Your task to perform on an android device: set the timer Image 0: 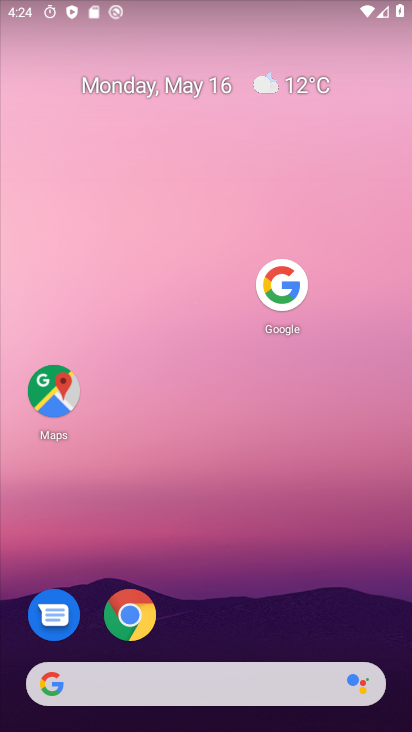
Step 0: drag from (231, 663) to (229, 16)
Your task to perform on an android device: set the timer Image 1: 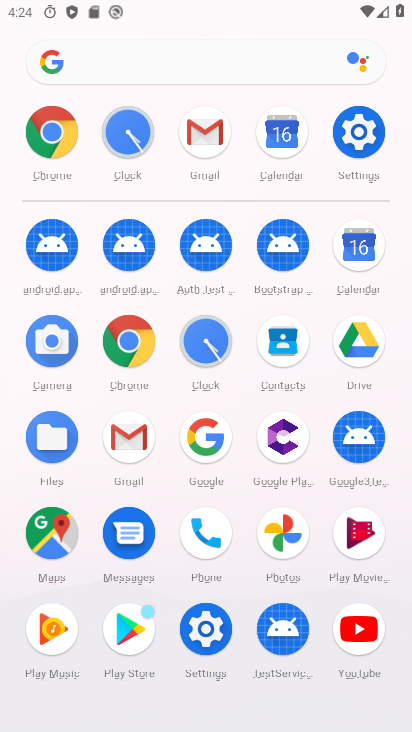
Step 1: click (202, 345)
Your task to perform on an android device: set the timer Image 2: 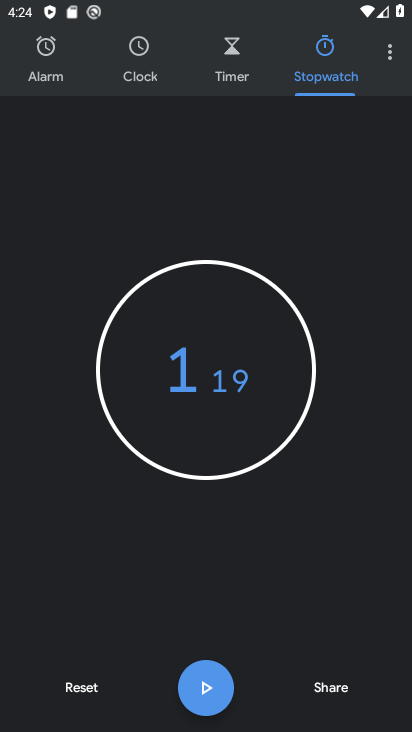
Step 2: click (223, 78)
Your task to perform on an android device: set the timer Image 3: 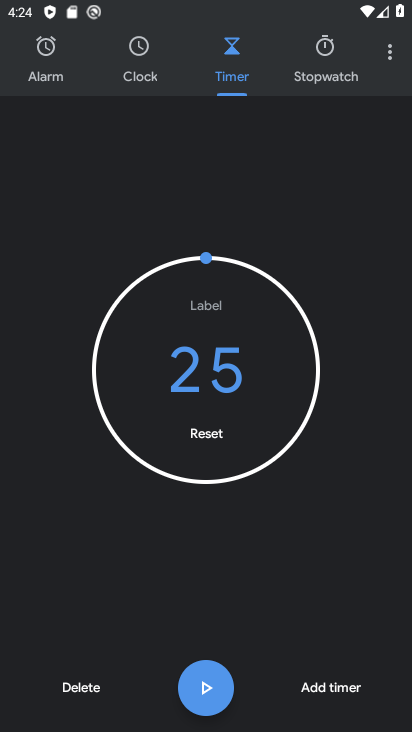
Step 3: click (312, 694)
Your task to perform on an android device: set the timer Image 4: 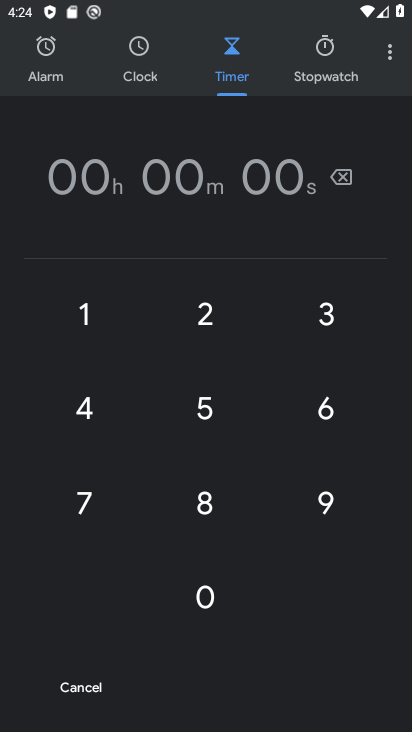
Step 4: click (194, 318)
Your task to perform on an android device: set the timer Image 5: 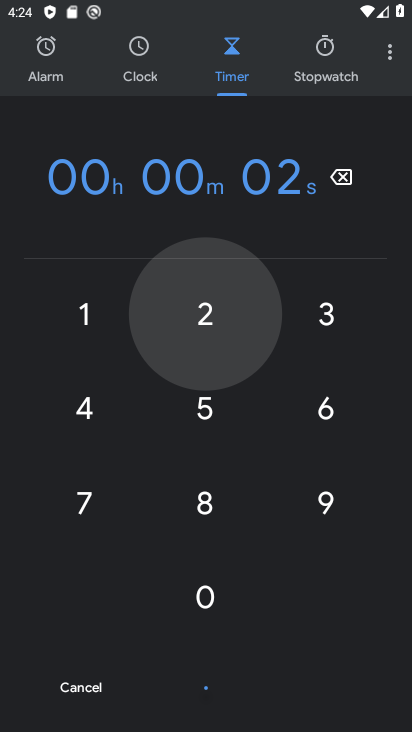
Step 5: click (198, 415)
Your task to perform on an android device: set the timer Image 6: 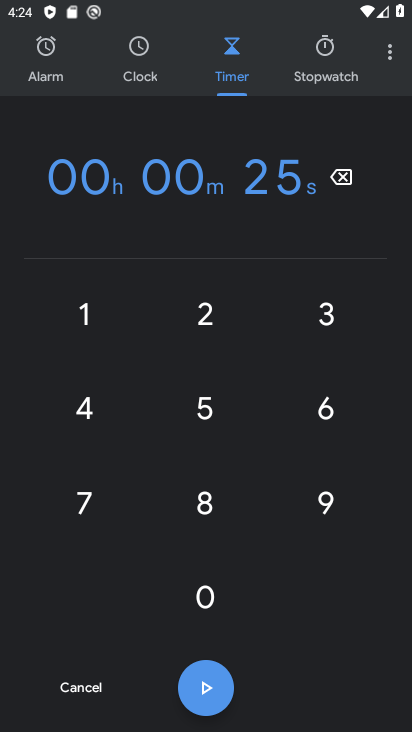
Step 6: click (195, 685)
Your task to perform on an android device: set the timer Image 7: 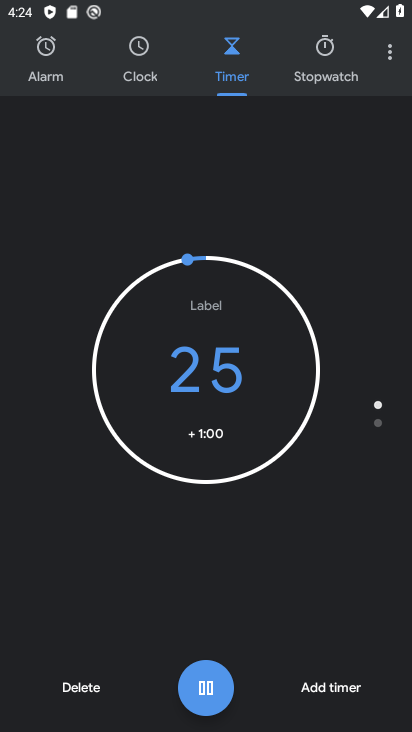
Step 7: task complete